Your task to perform on an android device: Turn on the flashlight Image 0: 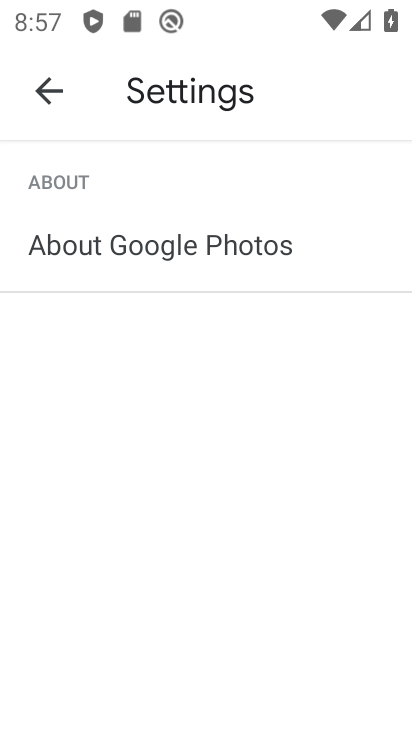
Step 0: drag from (190, 0) to (232, 525)
Your task to perform on an android device: Turn on the flashlight Image 1: 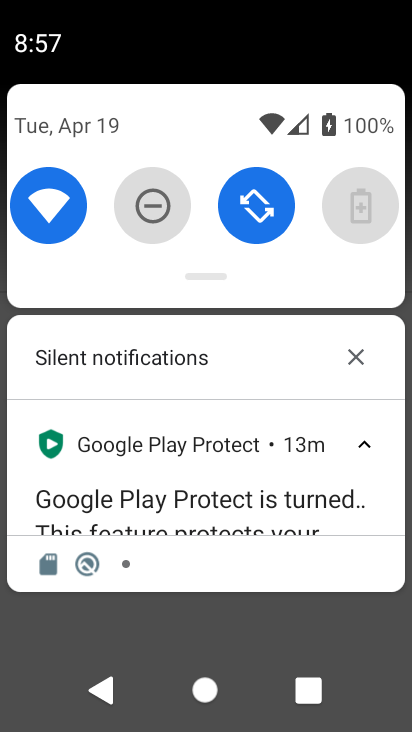
Step 1: task complete